Your task to perform on an android device: empty trash in google photos Image 0: 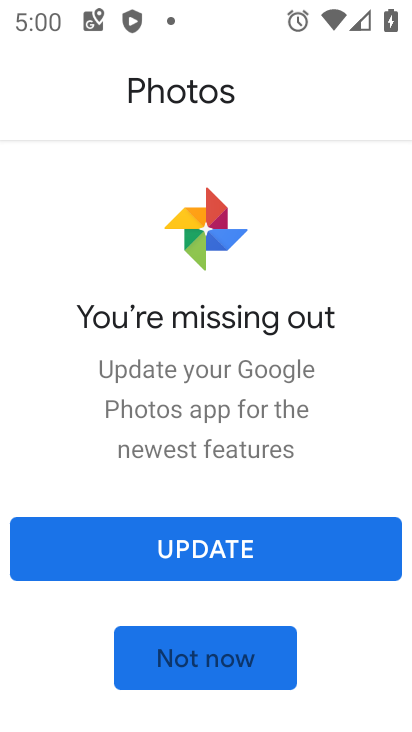
Step 0: click (201, 542)
Your task to perform on an android device: empty trash in google photos Image 1: 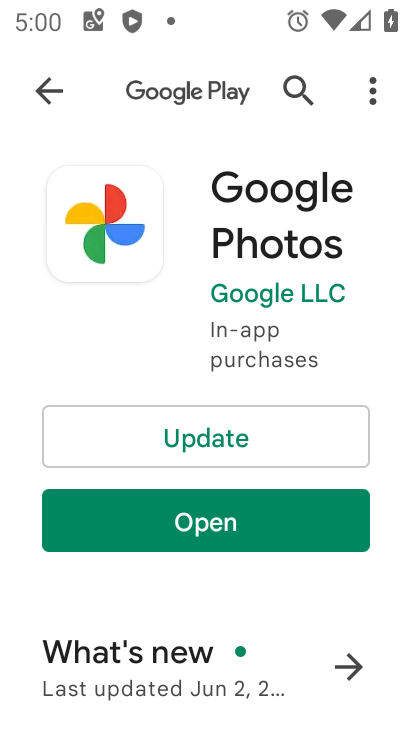
Step 1: click (221, 533)
Your task to perform on an android device: empty trash in google photos Image 2: 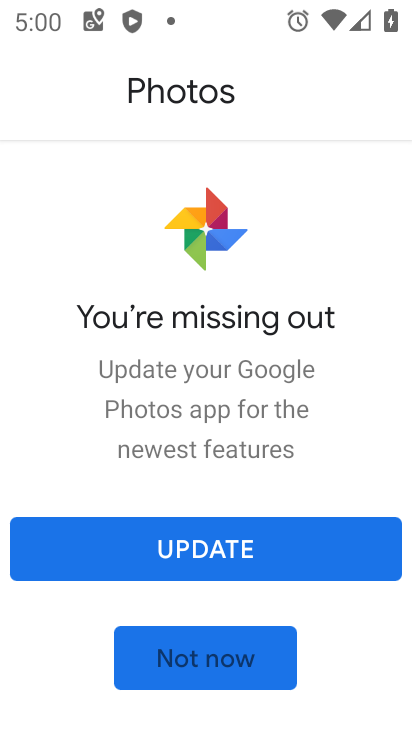
Step 2: click (222, 551)
Your task to perform on an android device: empty trash in google photos Image 3: 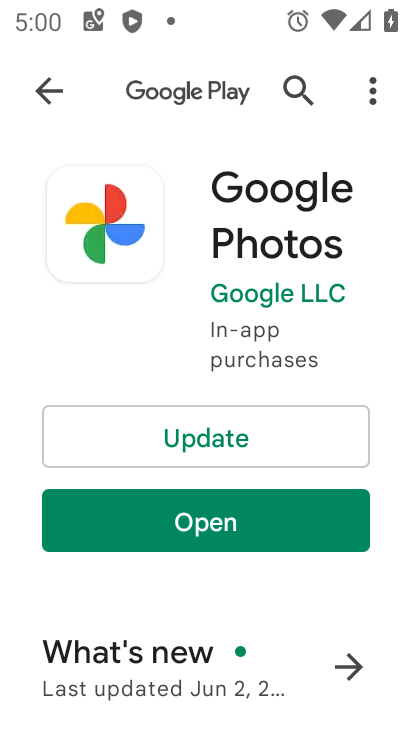
Step 3: click (188, 441)
Your task to perform on an android device: empty trash in google photos Image 4: 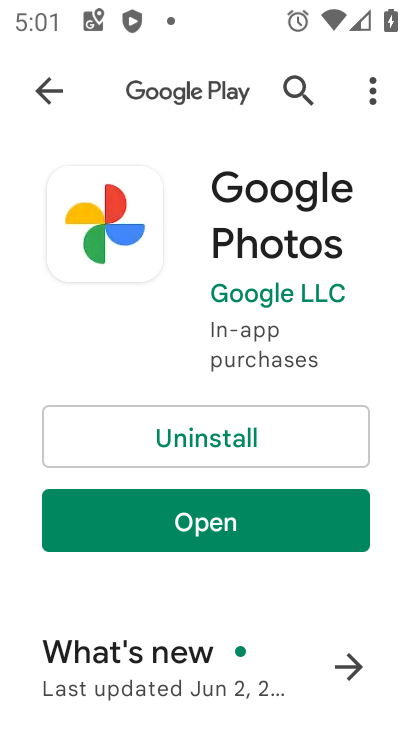
Step 4: click (207, 532)
Your task to perform on an android device: empty trash in google photos Image 5: 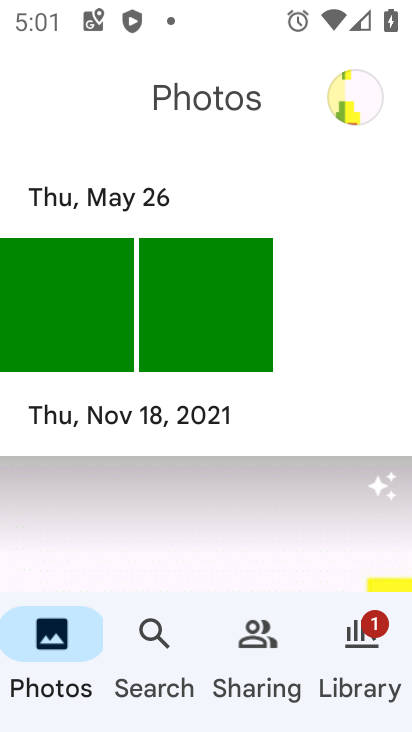
Step 5: click (356, 643)
Your task to perform on an android device: empty trash in google photos Image 6: 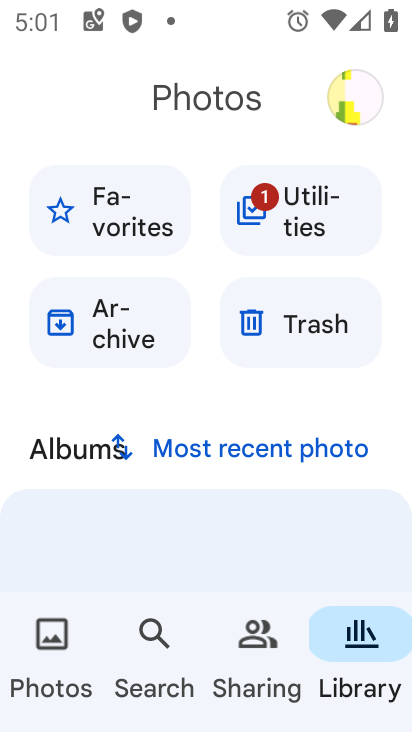
Step 6: click (274, 331)
Your task to perform on an android device: empty trash in google photos Image 7: 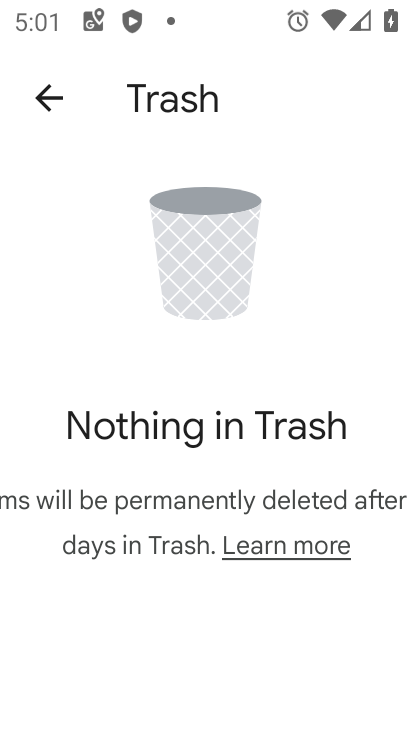
Step 7: task complete